Your task to perform on an android device: Turn on the flashlight Image 0: 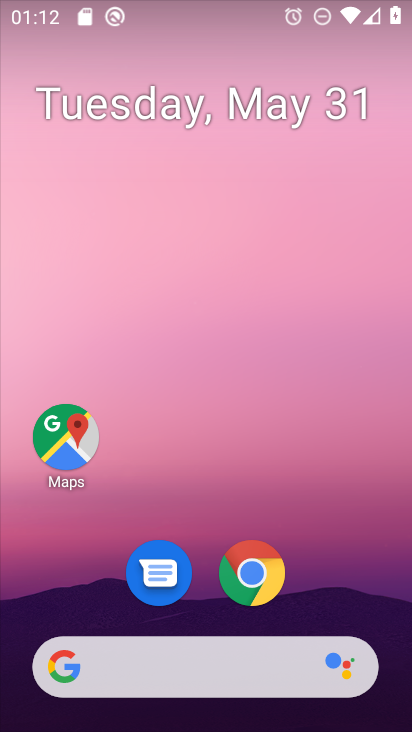
Step 0: drag from (250, 128) to (332, 724)
Your task to perform on an android device: Turn on the flashlight Image 1: 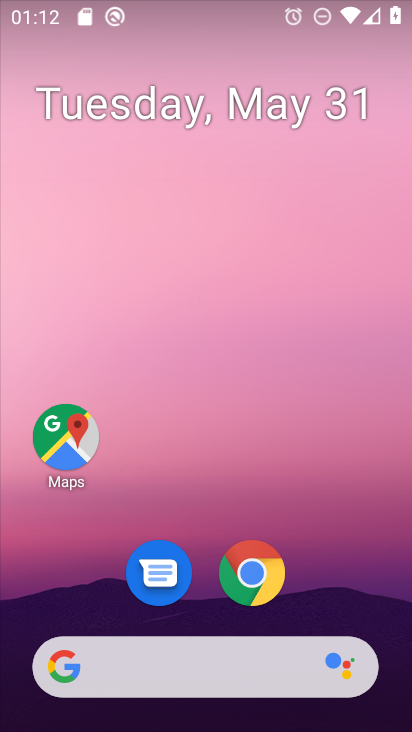
Step 1: task complete